Your task to perform on an android device: turn pop-ups on in chrome Image 0: 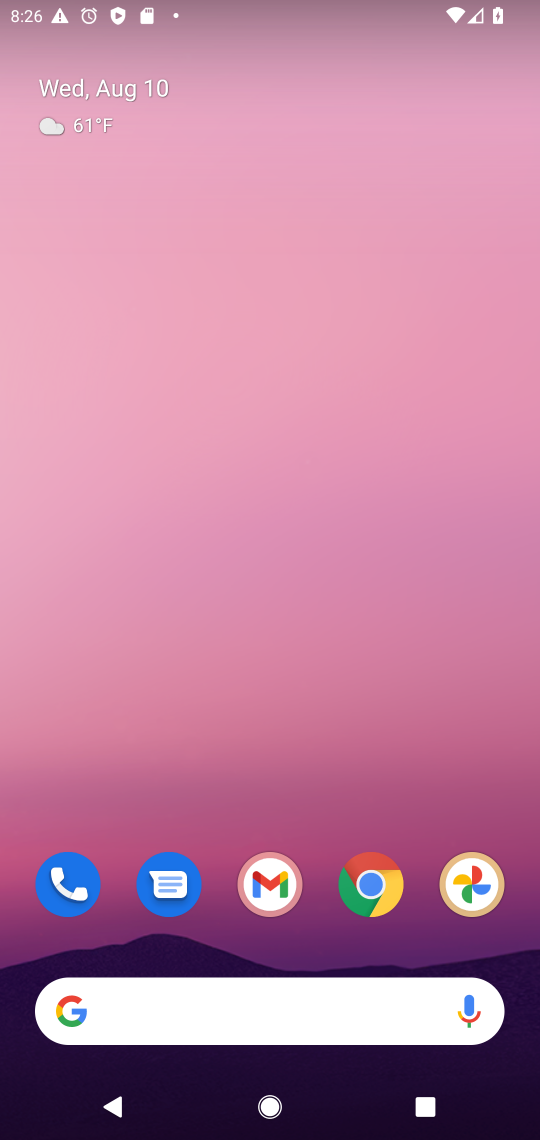
Step 0: click (373, 886)
Your task to perform on an android device: turn pop-ups on in chrome Image 1: 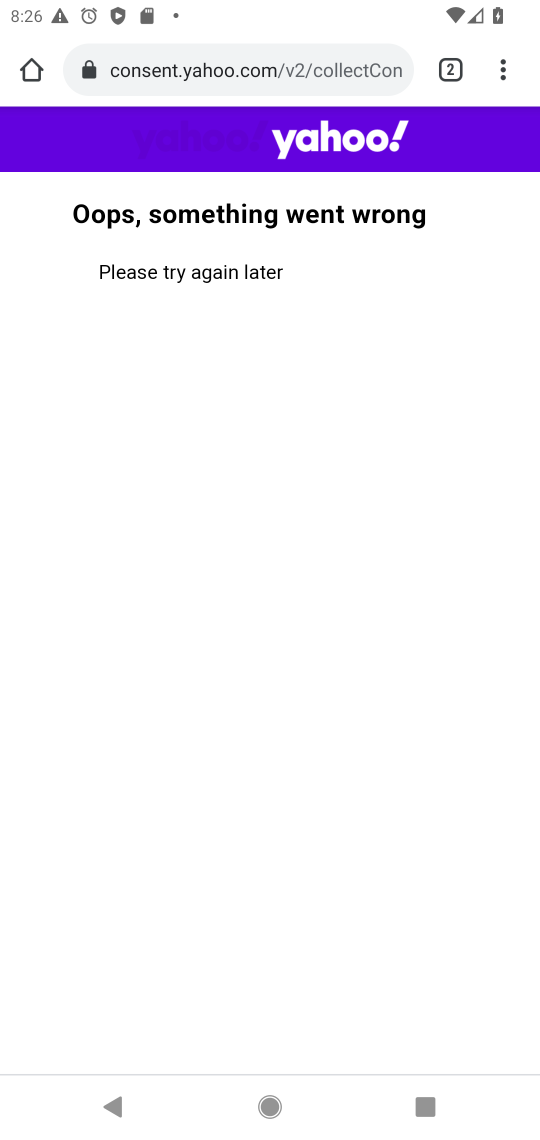
Step 1: click (504, 80)
Your task to perform on an android device: turn pop-ups on in chrome Image 2: 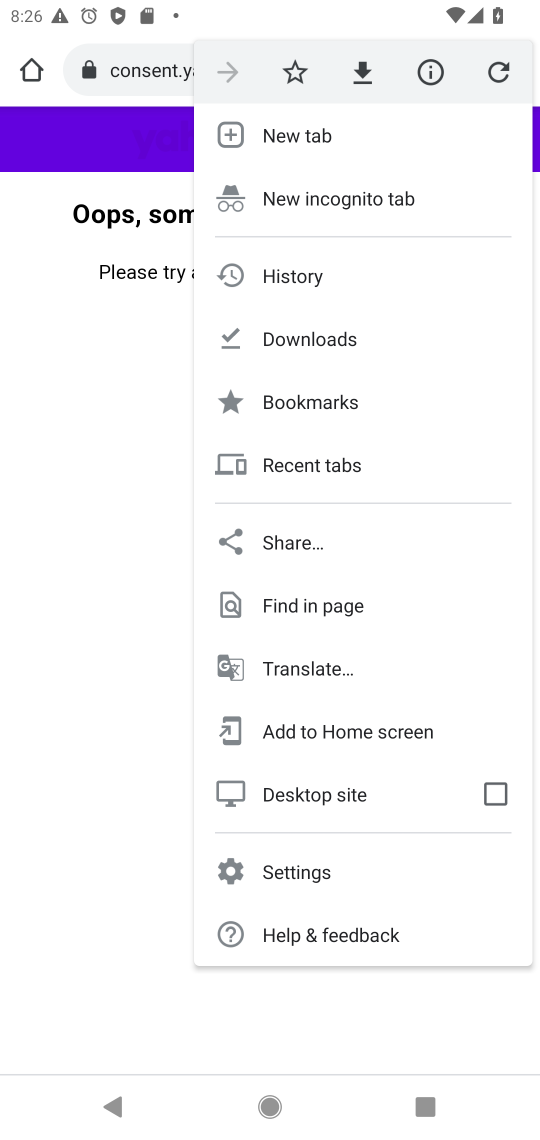
Step 2: click (300, 877)
Your task to perform on an android device: turn pop-ups on in chrome Image 3: 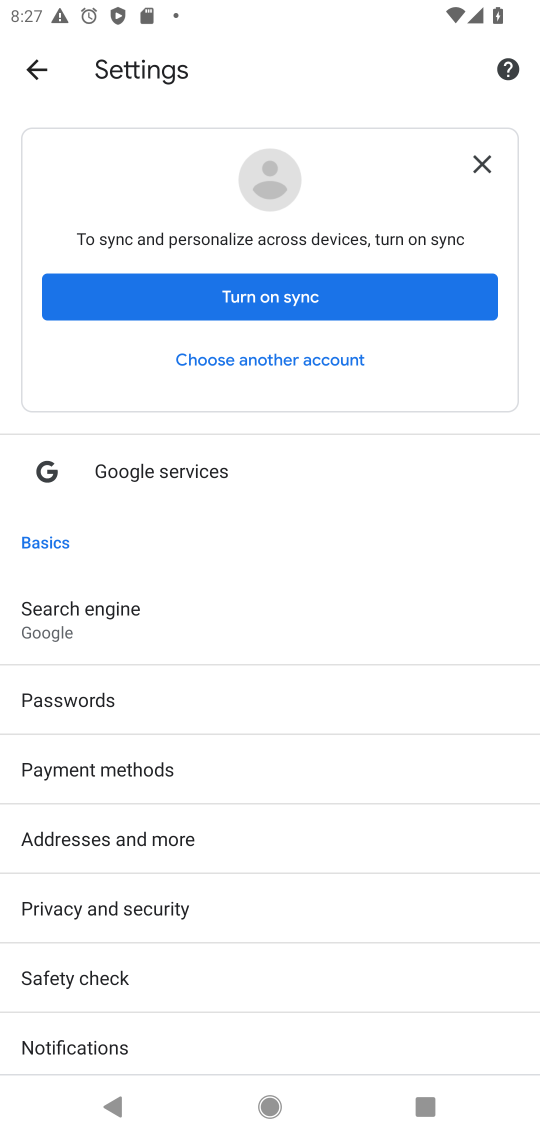
Step 3: drag from (332, 954) to (324, 456)
Your task to perform on an android device: turn pop-ups on in chrome Image 4: 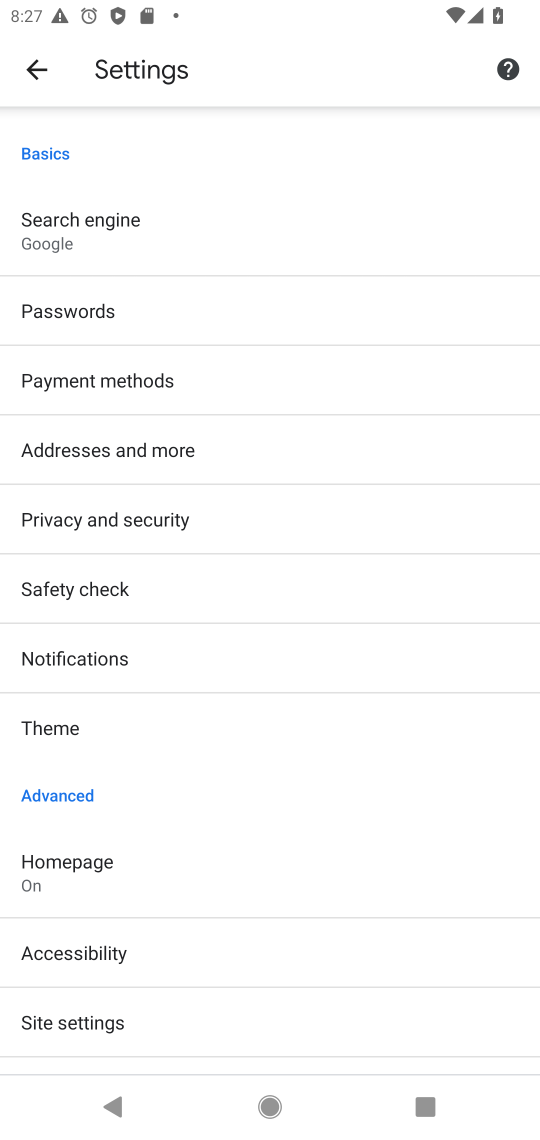
Step 4: click (98, 1026)
Your task to perform on an android device: turn pop-ups on in chrome Image 5: 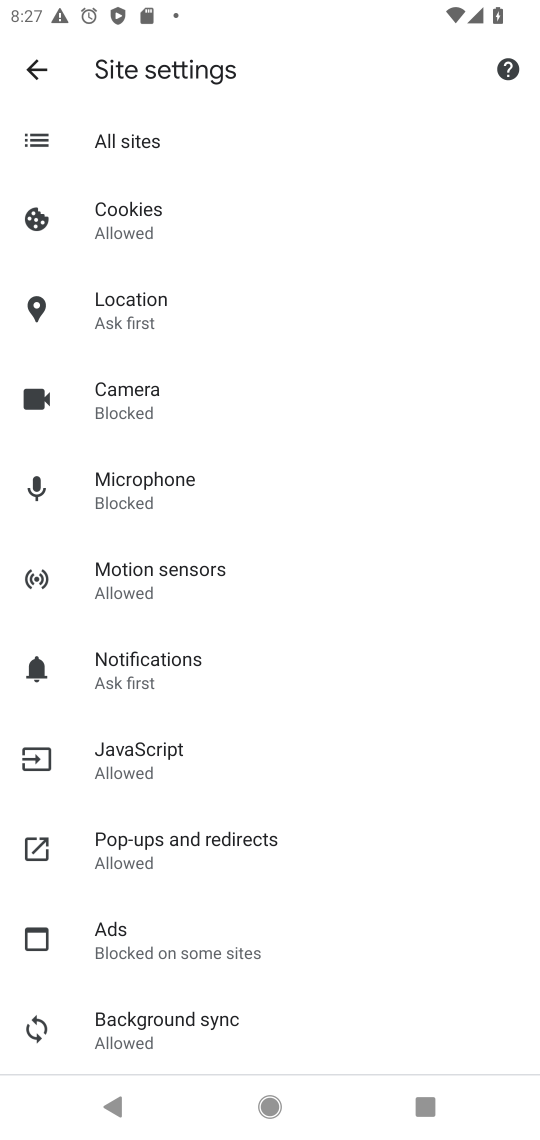
Step 5: click (164, 855)
Your task to perform on an android device: turn pop-ups on in chrome Image 6: 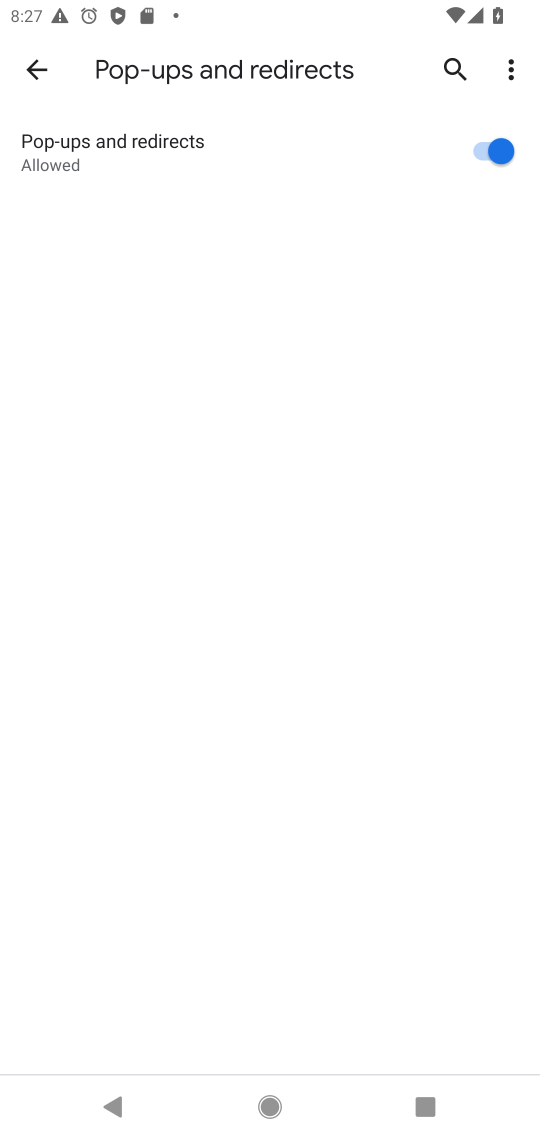
Step 6: task complete